Your task to perform on an android device: Open Google Maps and go to "Timeline" Image 0: 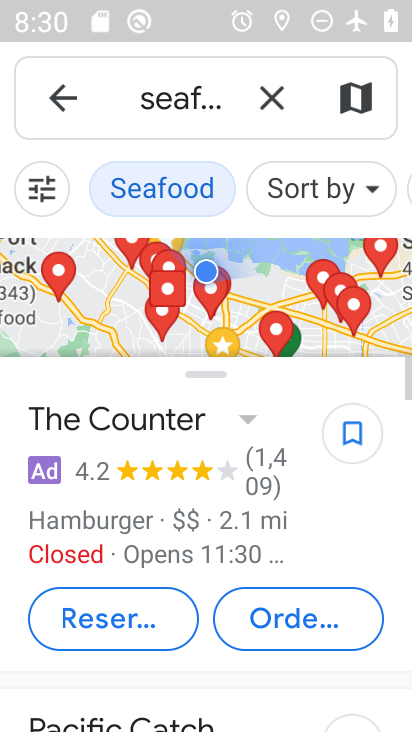
Step 0: press home button
Your task to perform on an android device: Open Google Maps and go to "Timeline" Image 1: 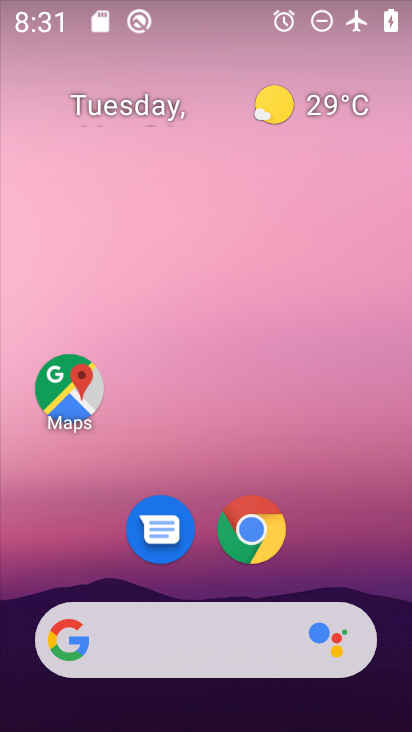
Step 1: drag from (395, 665) to (215, 28)
Your task to perform on an android device: Open Google Maps and go to "Timeline" Image 2: 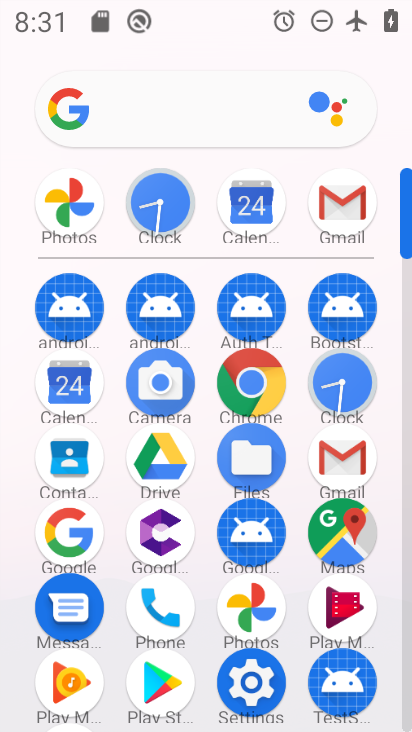
Step 2: click (348, 542)
Your task to perform on an android device: Open Google Maps and go to "Timeline" Image 3: 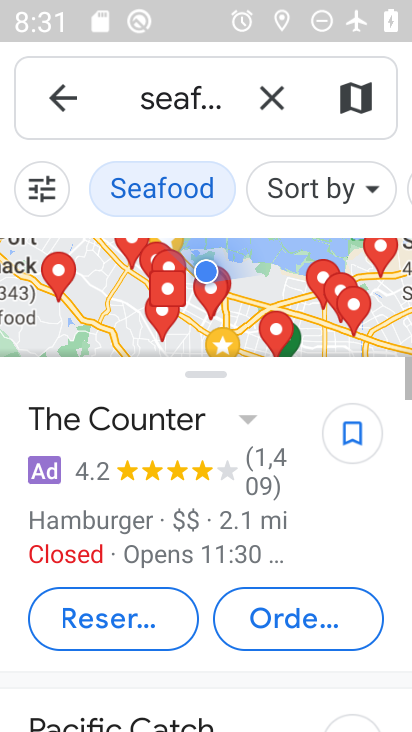
Step 3: press back button
Your task to perform on an android device: Open Google Maps and go to "Timeline" Image 4: 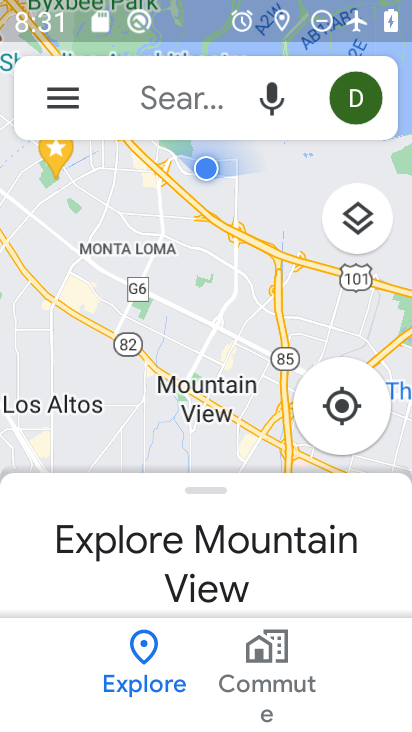
Step 4: click (55, 94)
Your task to perform on an android device: Open Google Maps and go to "Timeline" Image 5: 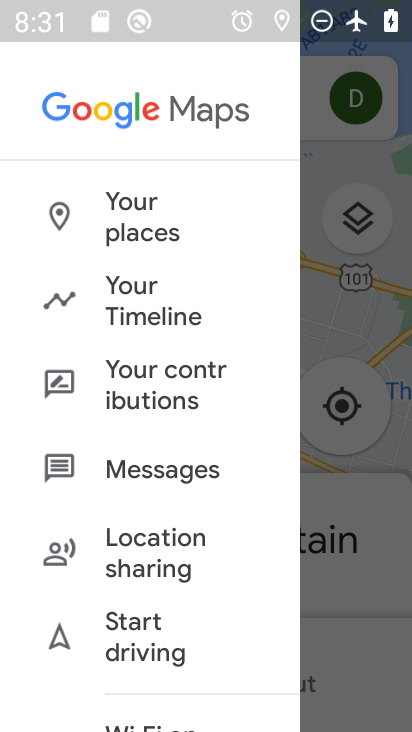
Step 5: click (169, 295)
Your task to perform on an android device: Open Google Maps and go to "Timeline" Image 6: 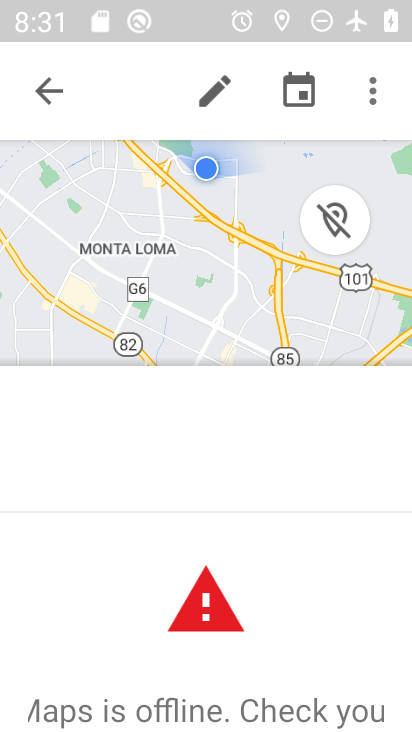
Step 6: task complete